Your task to perform on an android device: Check the weather Image 0: 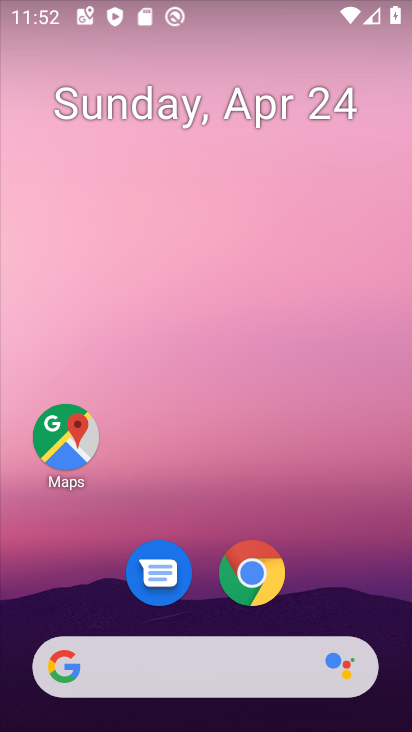
Step 0: drag from (374, 492) to (338, 92)
Your task to perform on an android device: Check the weather Image 1: 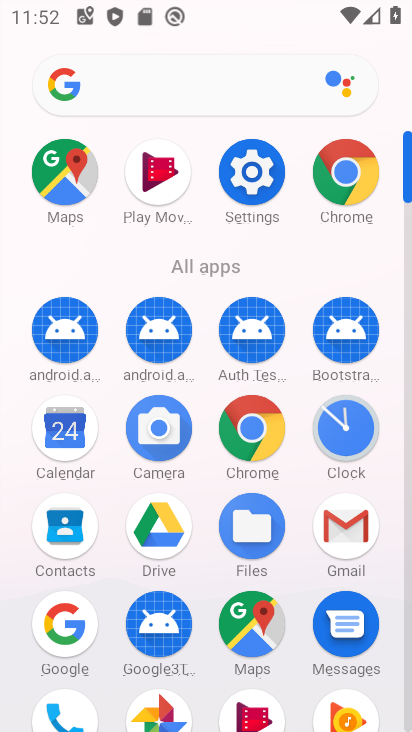
Step 1: click (77, 621)
Your task to perform on an android device: Check the weather Image 2: 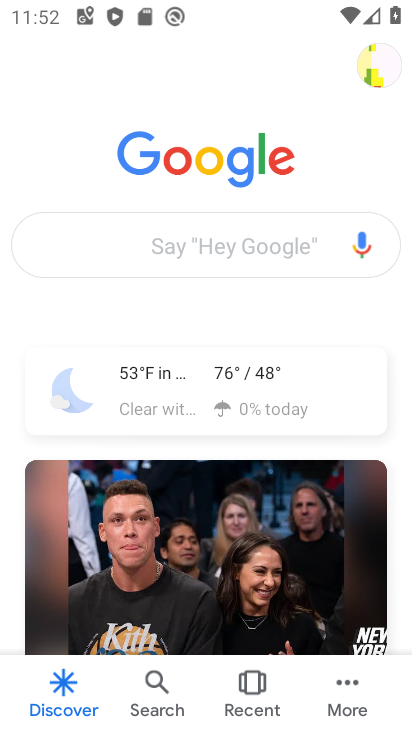
Step 2: click (215, 412)
Your task to perform on an android device: Check the weather Image 3: 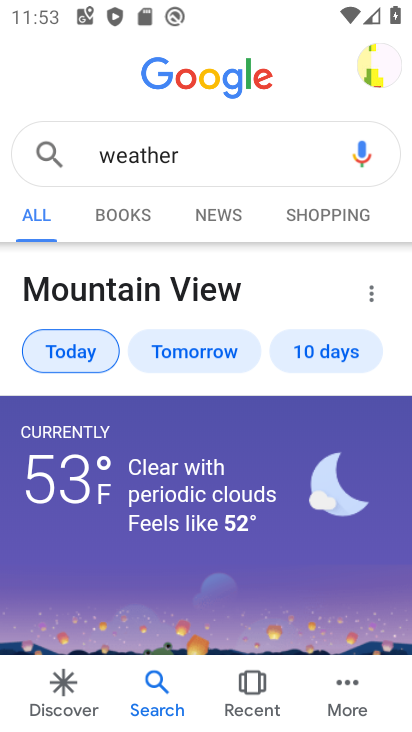
Step 3: task complete